Your task to perform on an android device: open app "Truecaller" (install if not already installed) and enter user name: "coauthor@gmail.com" and password: "quadrangle" Image 0: 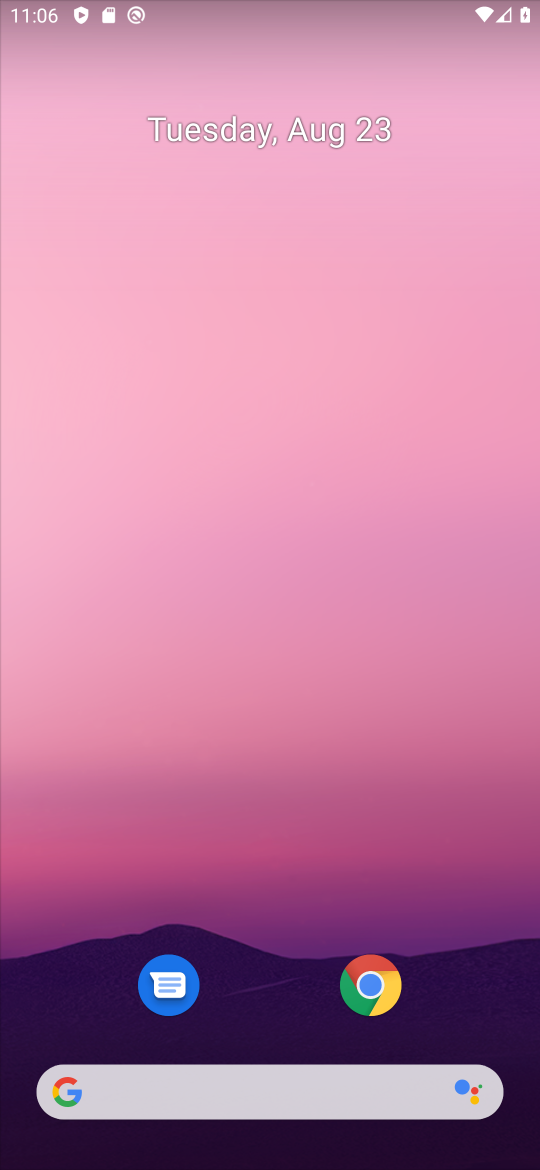
Step 0: drag from (259, 1066) to (459, 99)
Your task to perform on an android device: open app "Truecaller" (install if not already installed) and enter user name: "coauthor@gmail.com" and password: "quadrangle" Image 1: 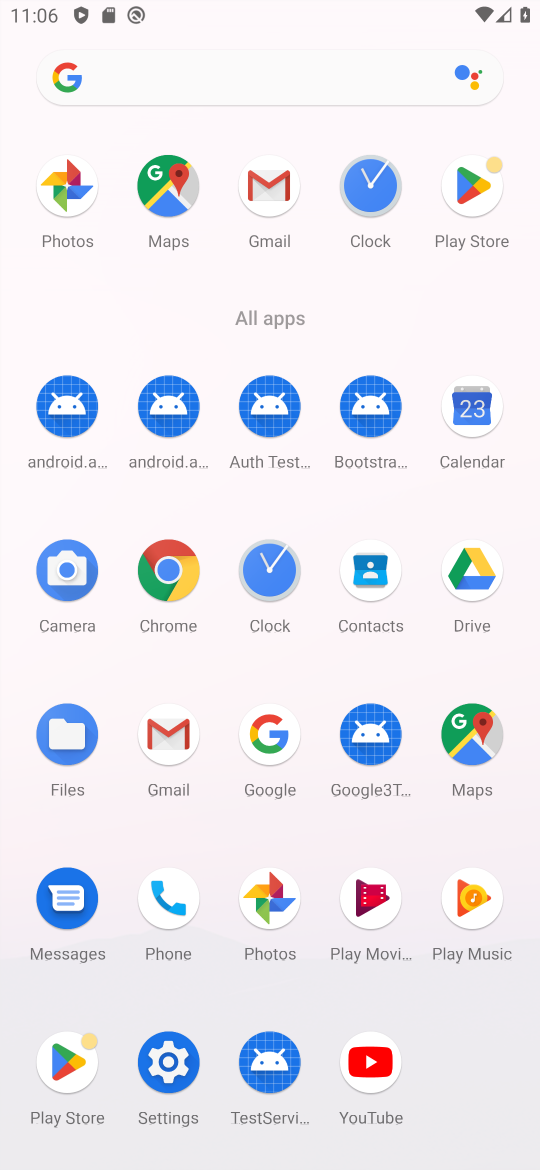
Step 1: click (471, 188)
Your task to perform on an android device: open app "Truecaller" (install if not already installed) and enter user name: "coauthor@gmail.com" and password: "quadrangle" Image 2: 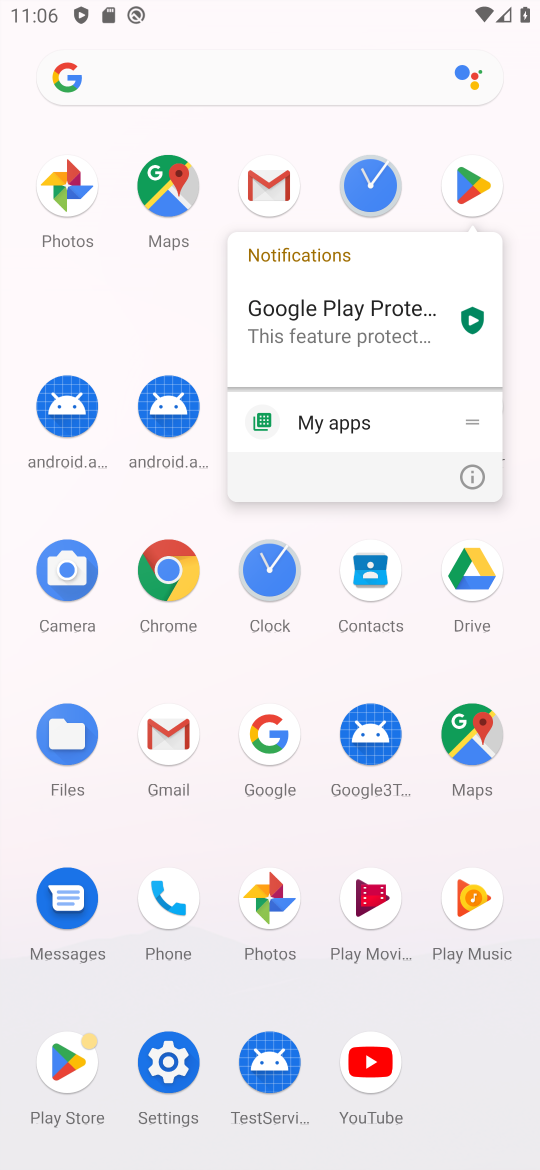
Step 2: click (471, 195)
Your task to perform on an android device: open app "Truecaller" (install if not already installed) and enter user name: "coauthor@gmail.com" and password: "quadrangle" Image 3: 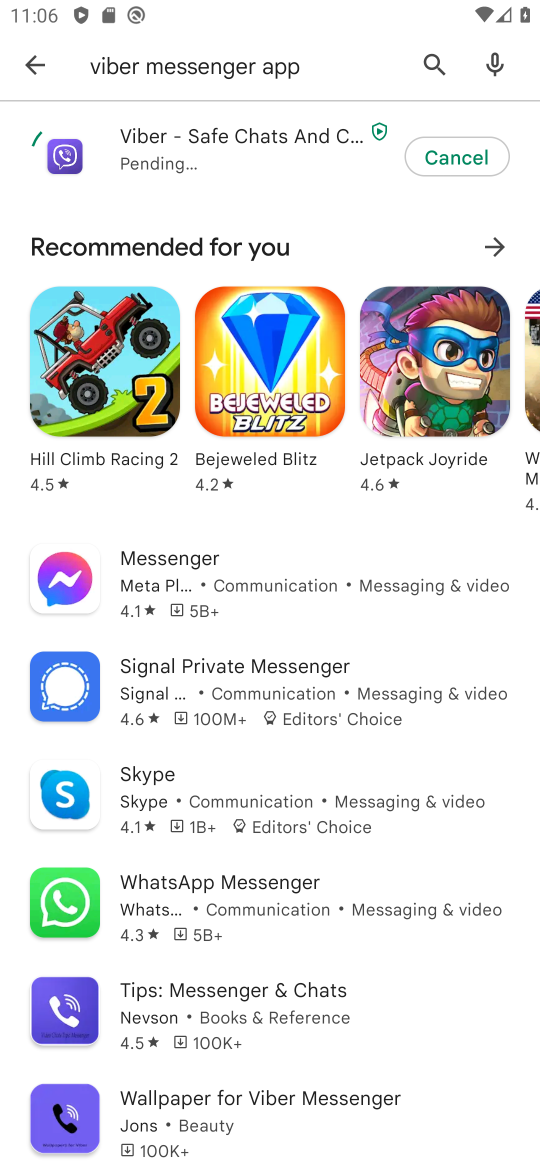
Step 3: click (427, 53)
Your task to perform on an android device: open app "Truecaller" (install if not already installed) and enter user name: "coauthor@gmail.com" and password: "quadrangle" Image 4: 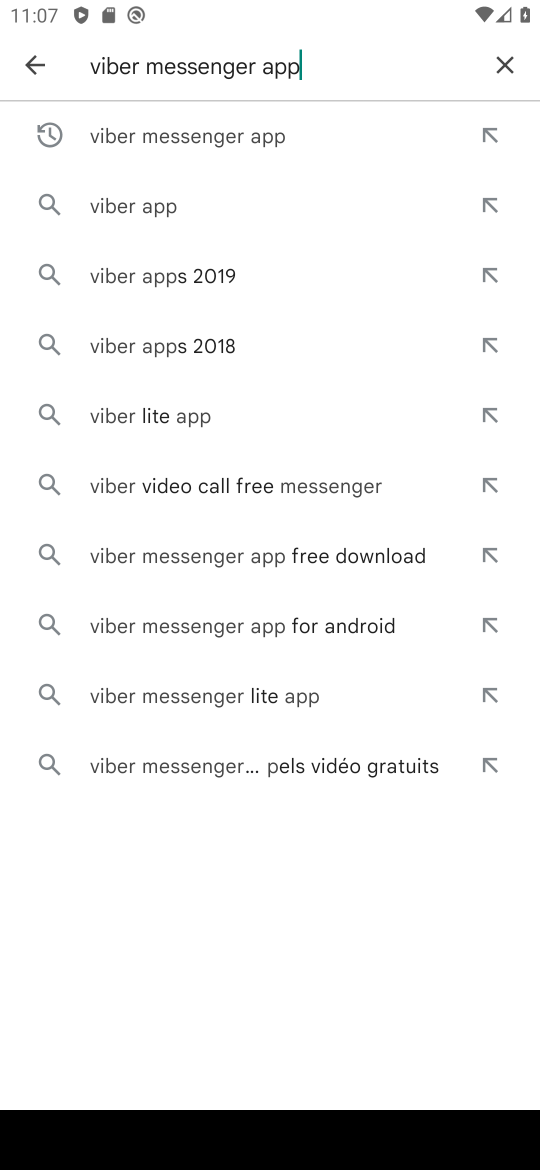
Step 4: click (501, 61)
Your task to perform on an android device: open app "Truecaller" (install if not already installed) and enter user name: "coauthor@gmail.com" and password: "quadrangle" Image 5: 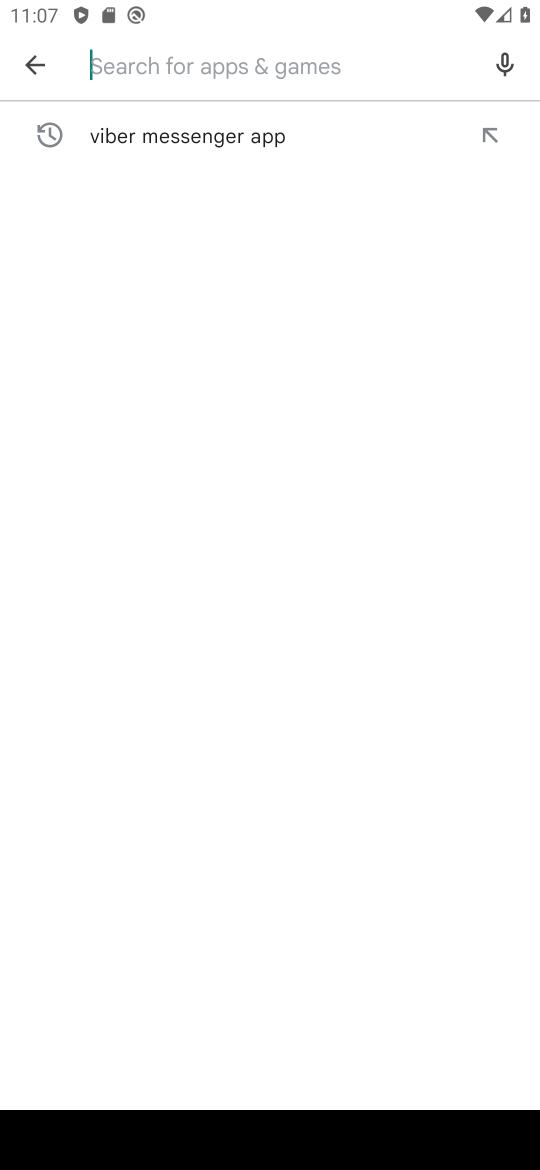
Step 5: type "Truecaller"
Your task to perform on an android device: open app "Truecaller" (install if not already installed) and enter user name: "coauthor@gmail.com" and password: "quadrangle" Image 6: 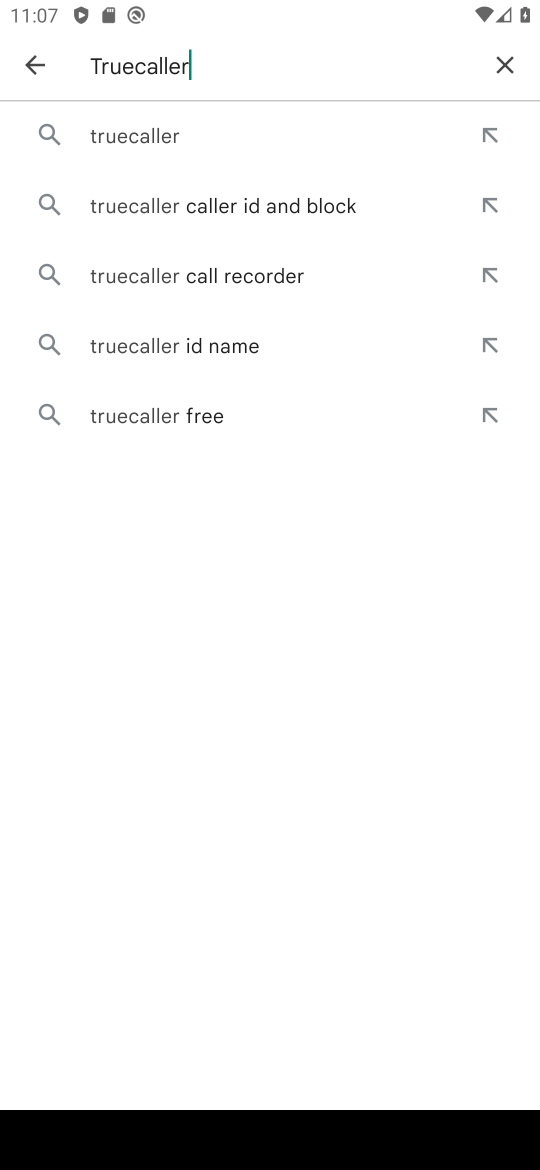
Step 6: click (137, 145)
Your task to perform on an android device: open app "Truecaller" (install if not already installed) and enter user name: "coauthor@gmail.com" and password: "quadrangle" Image 7: 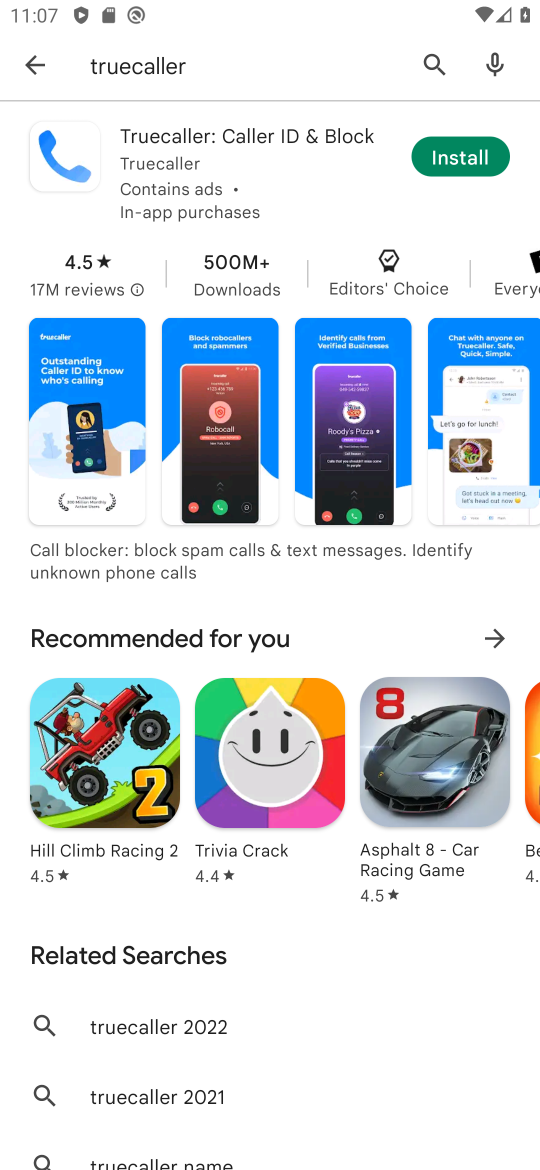
Step 7: click (448, 155)
Your task to perform on an android device: open app "Truecaller" (install if not already installed) and enter user name: "coauthor@gmail.com" and password: "quadrangle" Image 8: 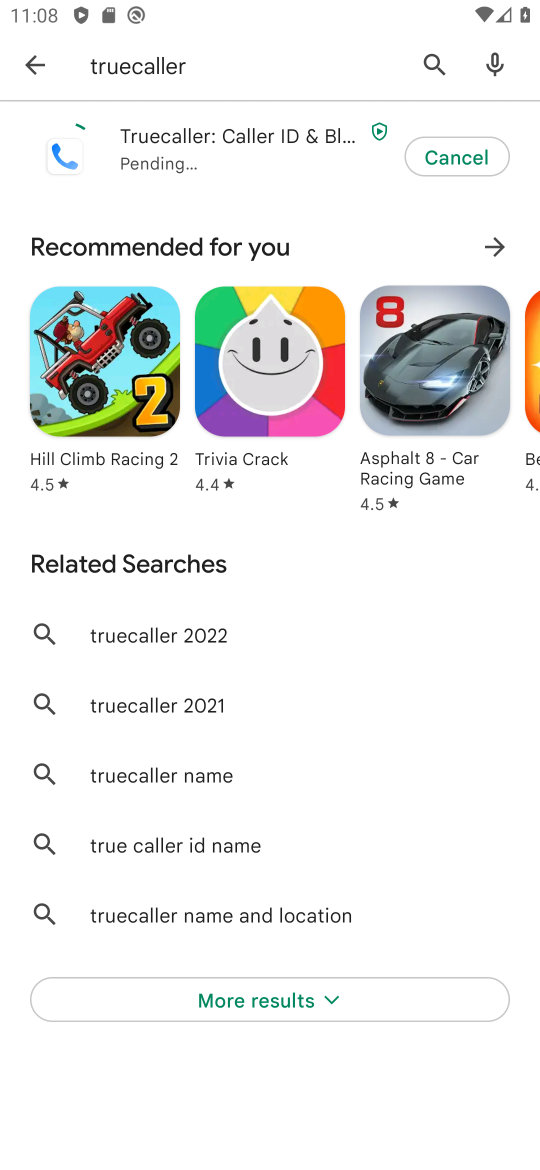
Step 8: task complete